Your task to perform on an android device: Go to Android settings Image 0: 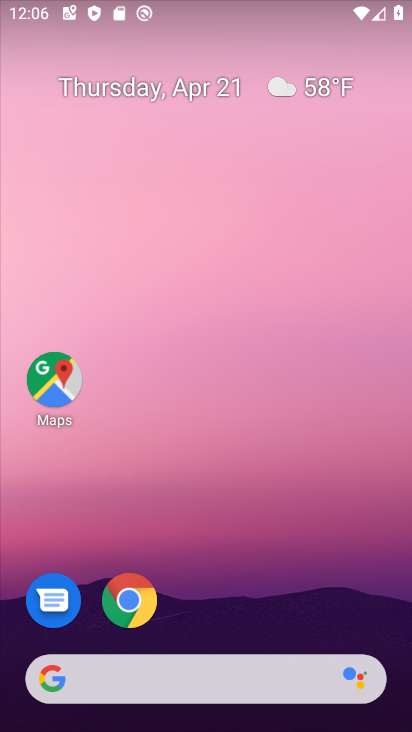
Step 0: drag from (216, 646) to (402, 445)
Your task to perform on an android device: Go to Android settings Image 1: 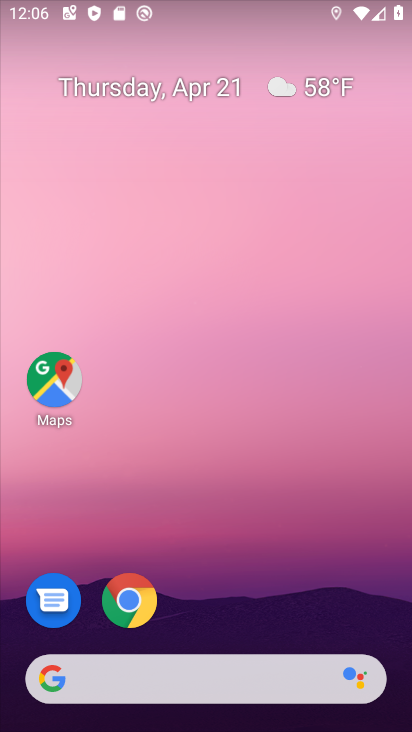
Step 1: click (366, 139)
Your task to perform on an android device: Go to Android settings Image 2: 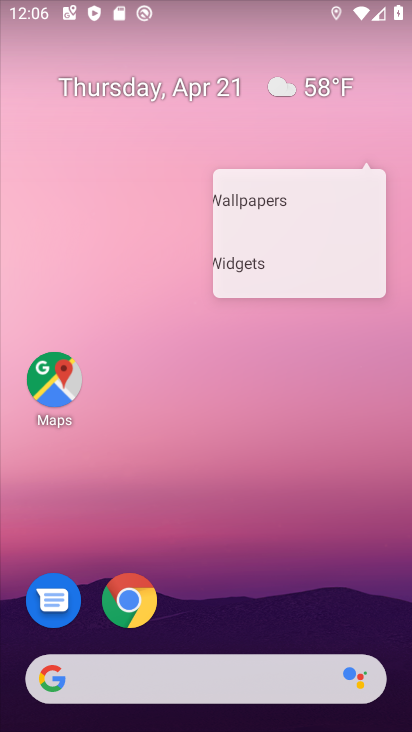
Step 2: drag from (270, 564) to (241, 1)
Your task to perform on an android device: Go to Android settings Image 3: 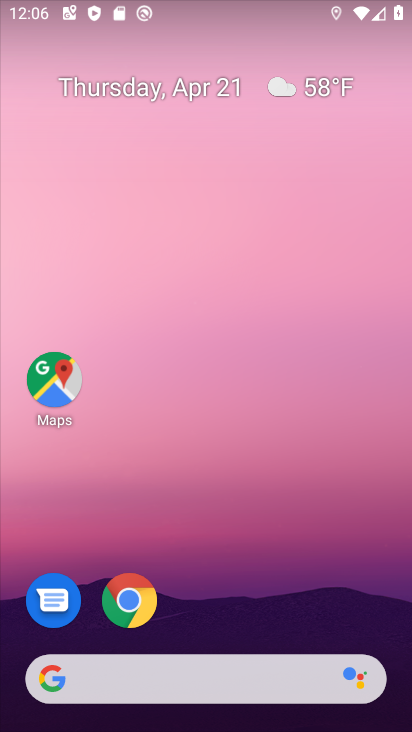
Step 3: drag from (204, 635) to (182, 6)
Your task to perform on an android device: Go to Android settings Image 4: 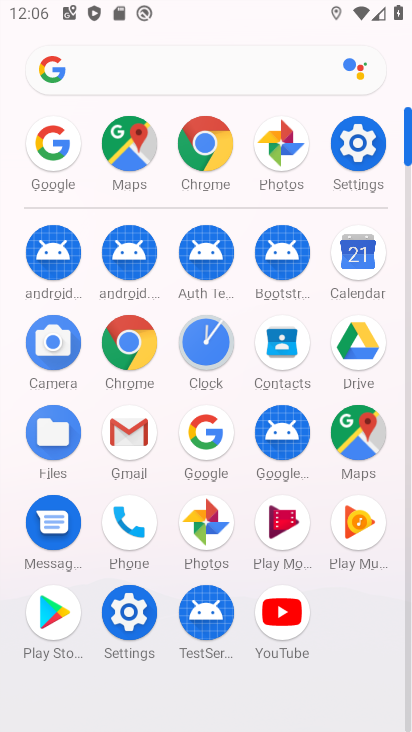
Step 4: click (370, 146)
Your task to perform on an android device: Go to Android settings Image 5: 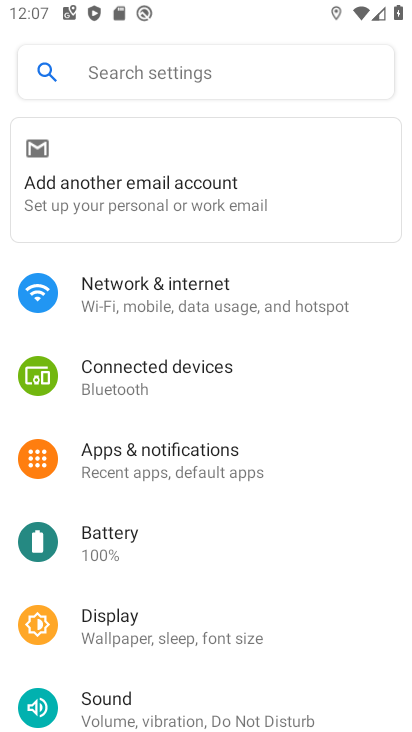
Step 5: task complete